Your task to perform on an android device: star an email in the gmail app Image 0: 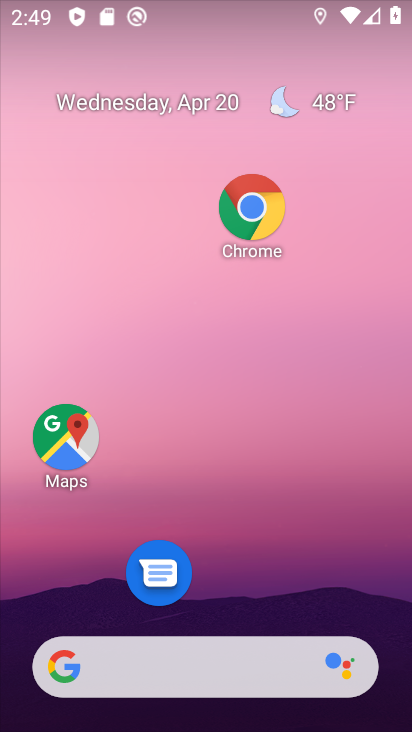
Step 0: drag from (314, 541) to (314, 212)
Your task to perform on an android device: star an email in the gmail app Image 1: 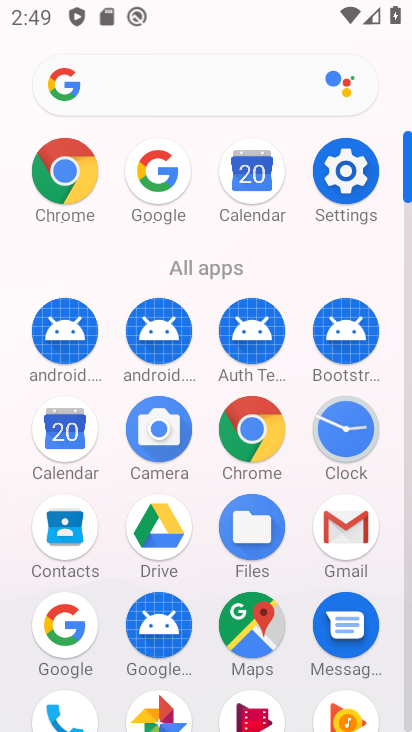
Step 1: click (341, 531)
Your task to perform on an android device: star an email in the gmail app Image 2: 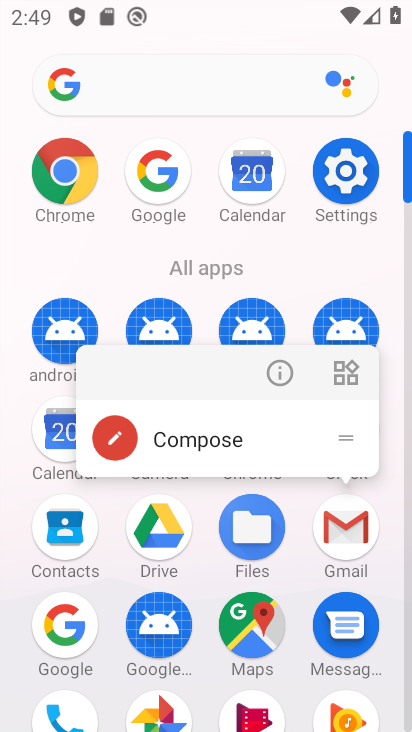
Step 2: click (355, 530)
Your task to perform on an android device: star an email in the gmail app Image 3: 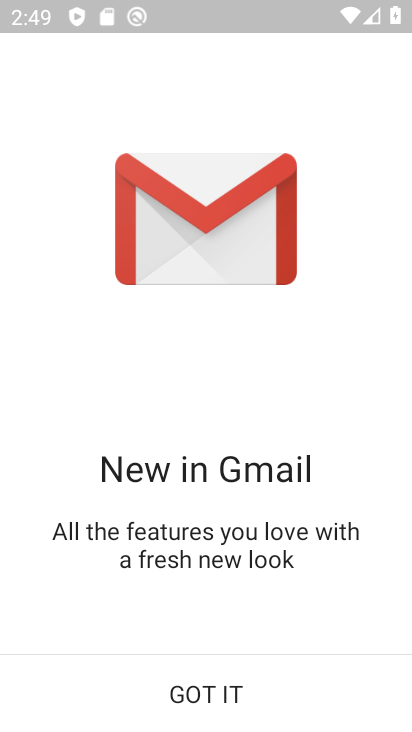
Step 3: click (264, 701)
Your task to perform on an android device: star an email in the gmail app Image 4: 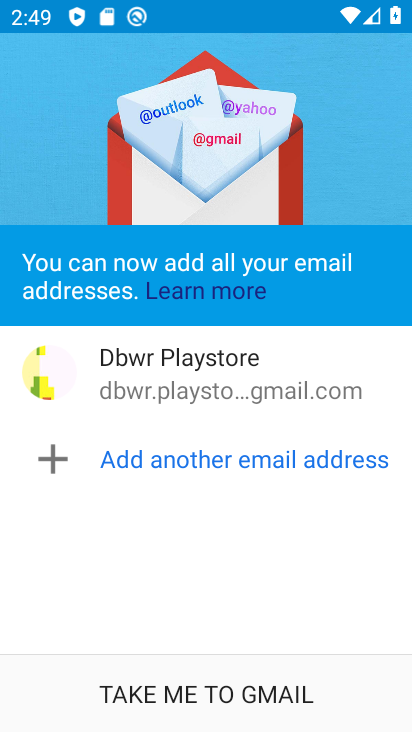
Step 4: click (266, 692)
Your task to perform on an android device: star an email in the gmail app Image 5: 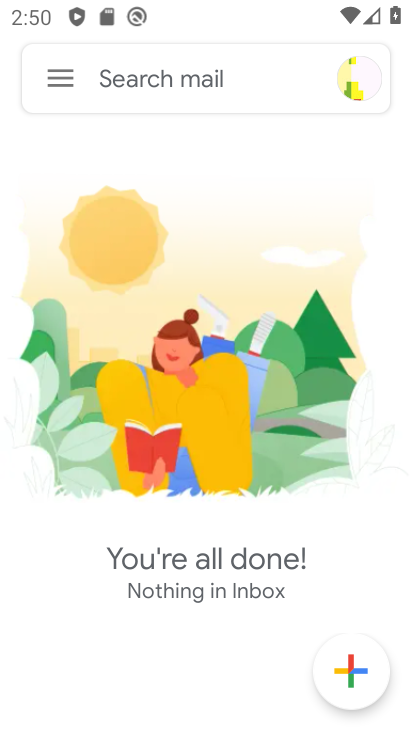
Step 5: click (62, 86)
Your task to perform on an android device: star an email in the gmail app Image 6: 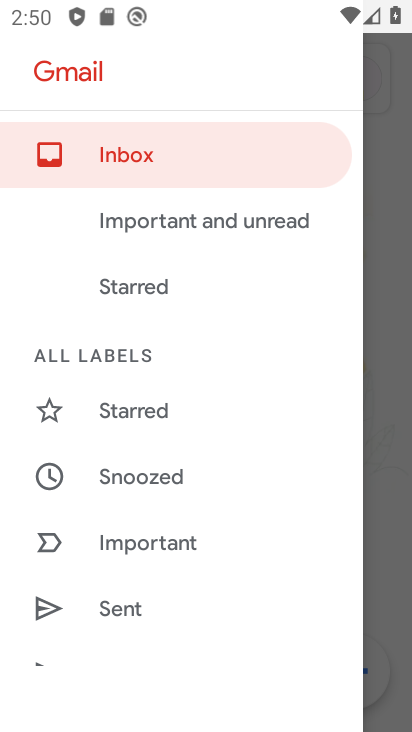
Step 6: drag from (196, 440) to (246, 173)
Your task to perform on an android device: star an email in the gmail app Image 7: 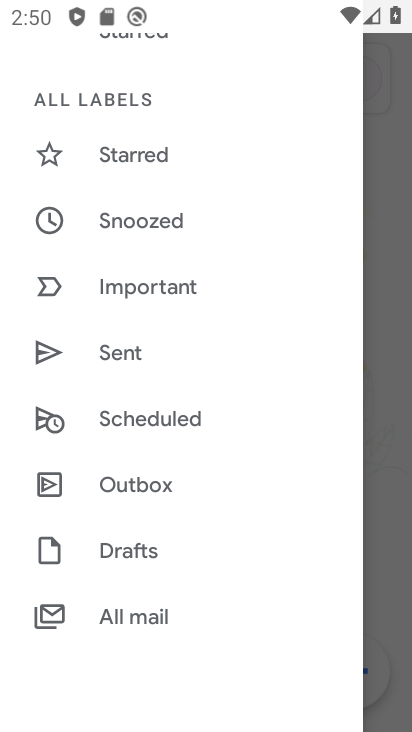
Step 7: drag from (206, 534) to (253, 242)
Your task to perform on an android device: star an email in the gmail app Image 8: 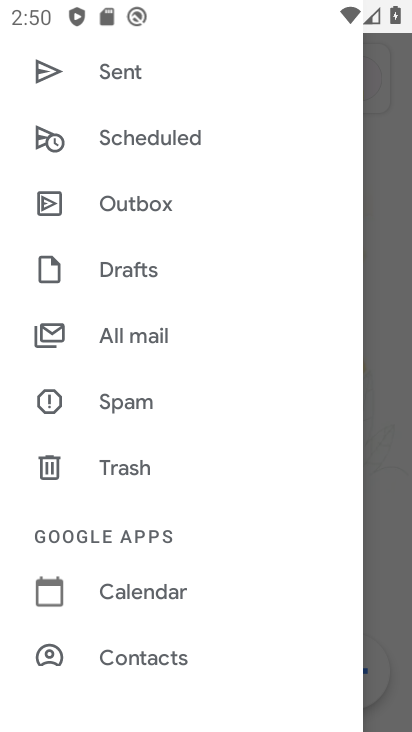
Step 8: drag from (169, 524) to (197, 340)
Your task to perform on an android device: star an email in the gmail app Image 9: 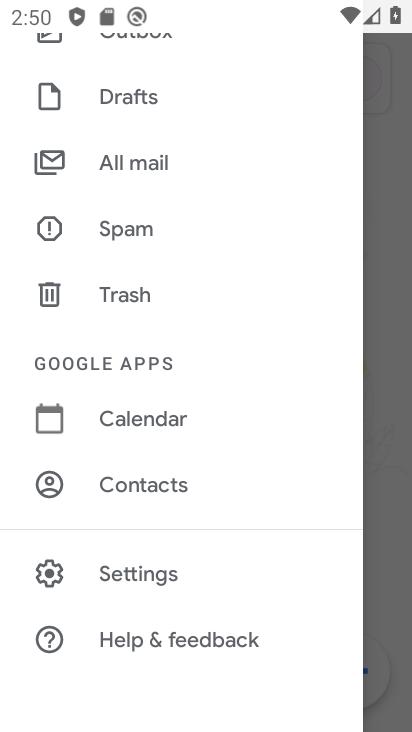
Step 9: click (176, 170)
Your task to perform on an android device: star an email in the gmail app Image 10: 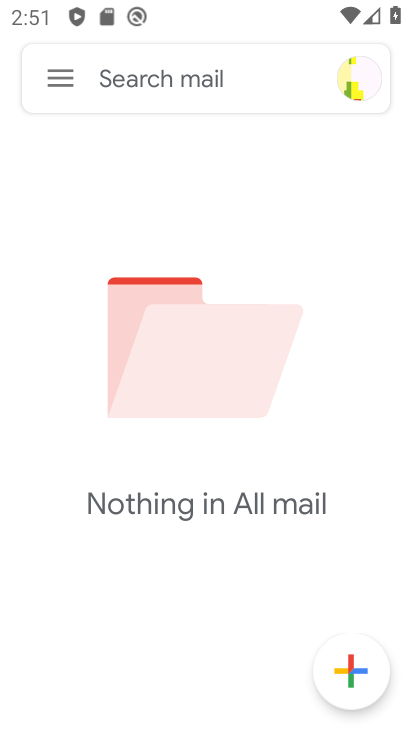
Step 10: task complete